Your task to perform on an android device: Search for the new Nintendo switch on Best Buy Image 0: 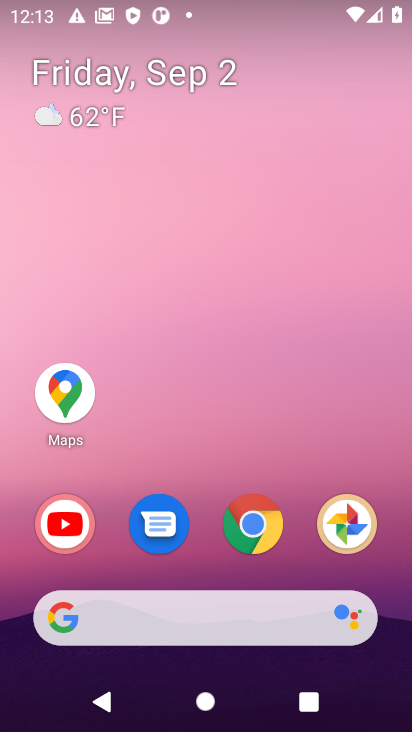
Step 0: click (247, 534)
Your task to perform on an android device: Search for the new Nintendo switch on Best Buy Image 1: 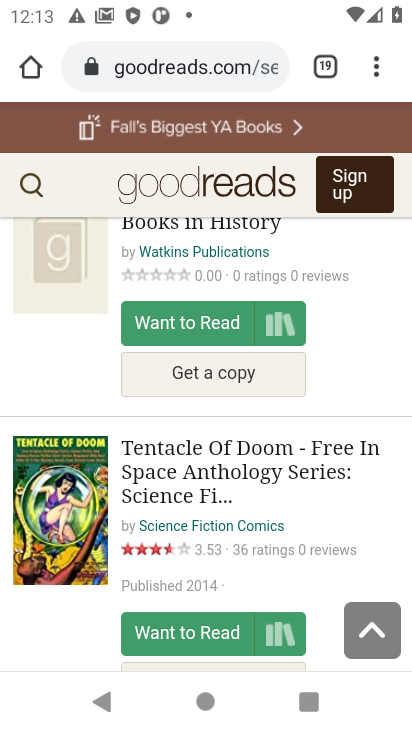
Step 1: click (323, 65)
Your task to perform on an android device: Search for the new Nintendo switch on Best Buy Image 2: 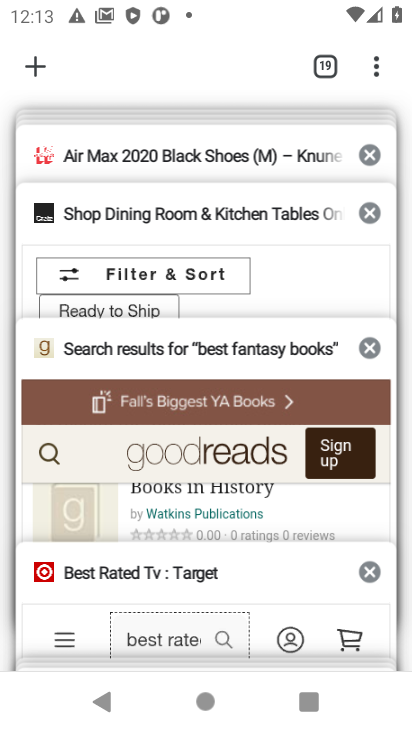
Step 2: drag from (128, 147) to (160, 609)
Your task to perform on an android device: Search for the new Nintendo switch on Best Buy Image 3: 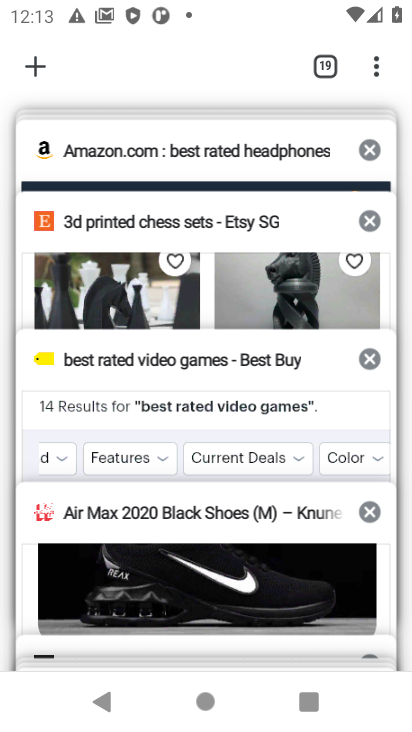
Step 3: click (200, 373)
Your task to perform on an android device: Search for the new Nintendo switch on Best Buy Image 4: 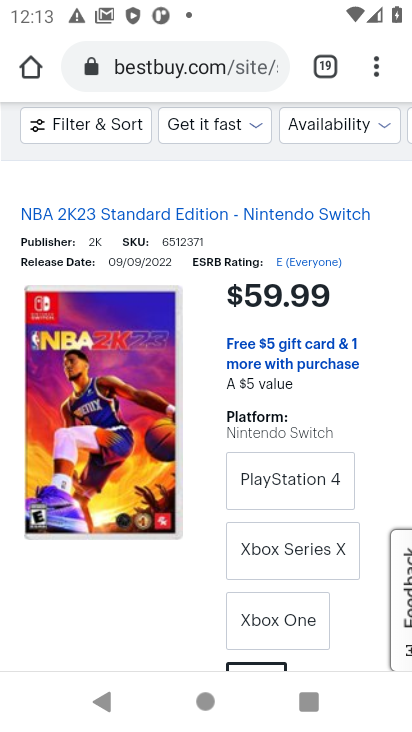
Step 4: drag from (295, 178) to (307, 371)
Your task to perform on an android device: Search for the new Nintendo switch on Best Buy Image 5: 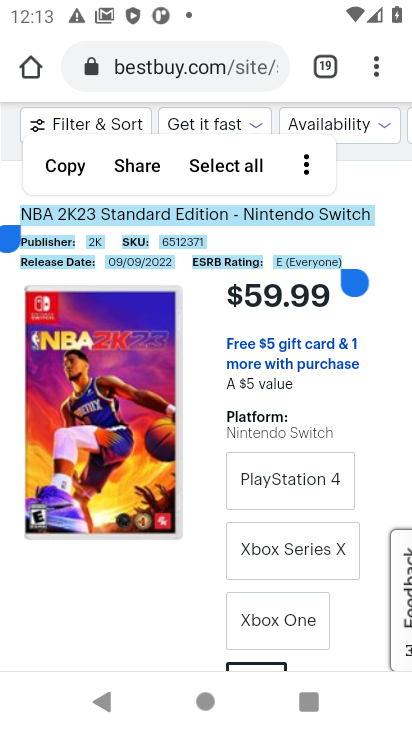
Step 5: click (392, 200)
Your task to perform on an android device: Search for the new Nintendo switch on Best Buy Image 6: 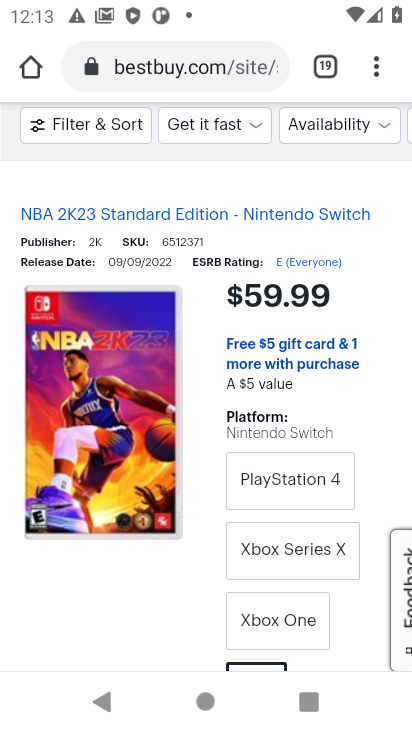
Step 6: drag from (346, 347) to (340, 538)
Your task to perform on an android device: Search for the new Nintendo switch on Best Buy Image 7: 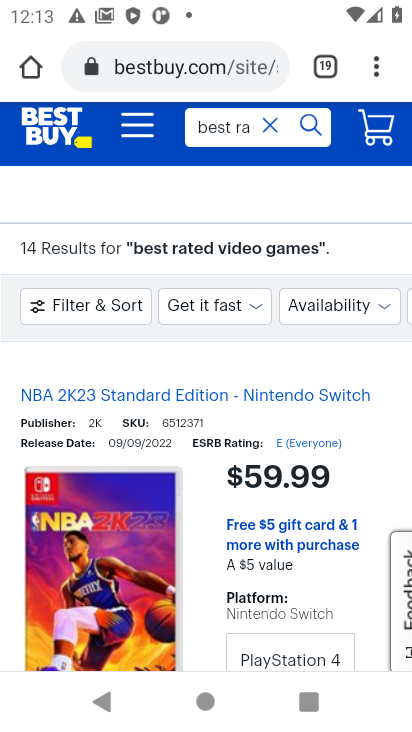
Step 7: click (269, 120)
Your task to perform on an android device: Search for the new Nintendo switch on Best Buy Image 8: 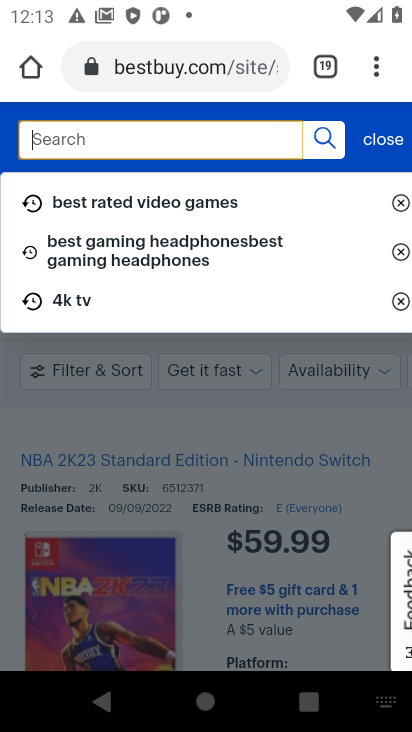
Step 8: click (231, 142)
Your task to perform on an android device: Search for the new Nintendo switch on Best Buy Image 9: 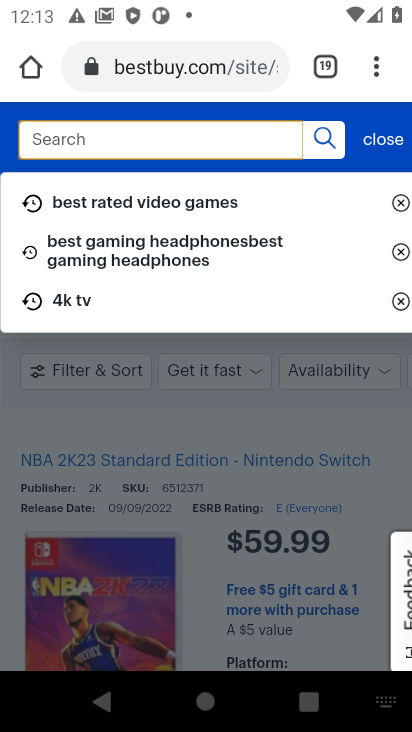
Step 9: type "Nintendo switch"
Your task to perform on an android device: Search for the new Nintendo switch on Best Buy Image 10: 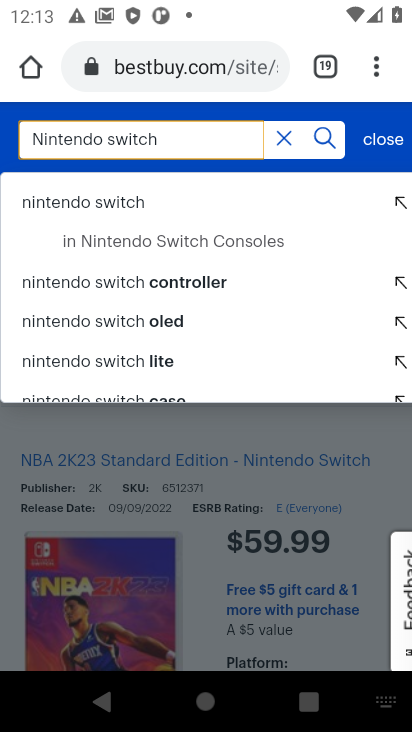
Step 10: click (120, 198)
Your task to perform on an android device: Search for the new Nintendo switch on Best Buy Image 11: 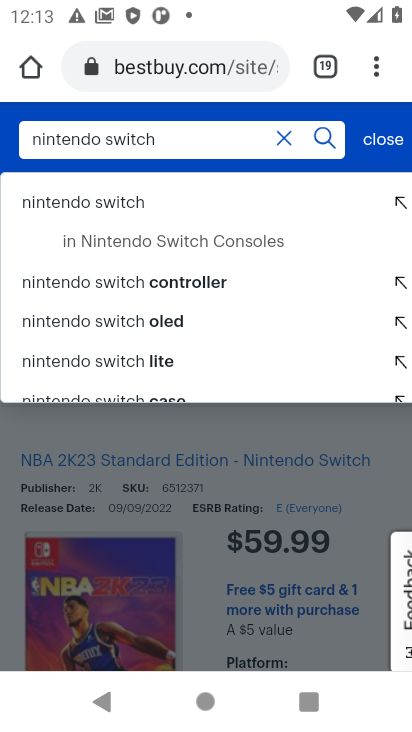
Step 11: click (97, 203)
Your task to perform on an android device: Search for the new Nintendo switch on Best Buy Image 12: 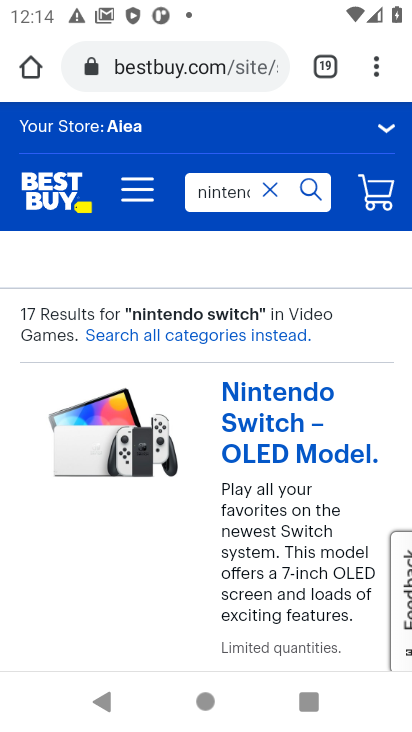
Step 12: drag from (283, 389) to (259, 298)
Your task to perform on an android device: Search for the new Nintendo switch on Best Buy Image 13: 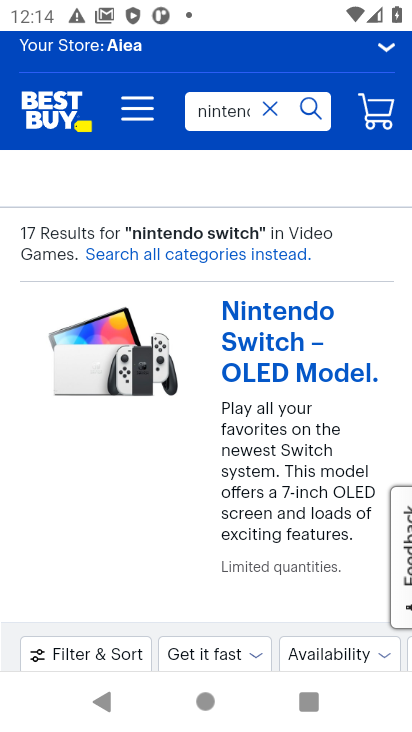
Step 13: drag from (351, 652) to (64, 669)
Your task to perform on an android device: Search for the new Nintendo switch on Best Buy Image 14: 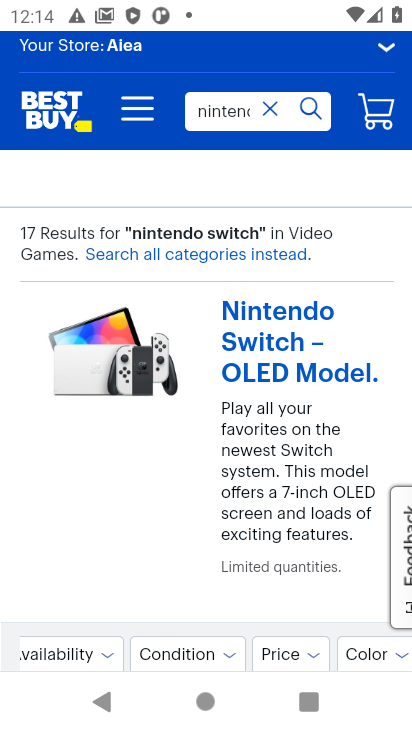
Step 14: drag from (363, 656) to (46, 674)
Your task to perform on an android device: Search for the new Nintendo switch on Best Buy Image 15: 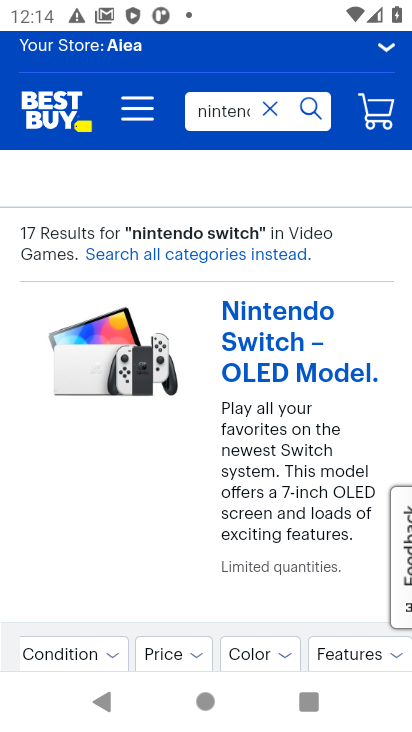
Step 15: drag from (383, 659) to (135, 664)
Your task to perform on an android device: Search for the new Nintendo switch on Best Buy Image 16: 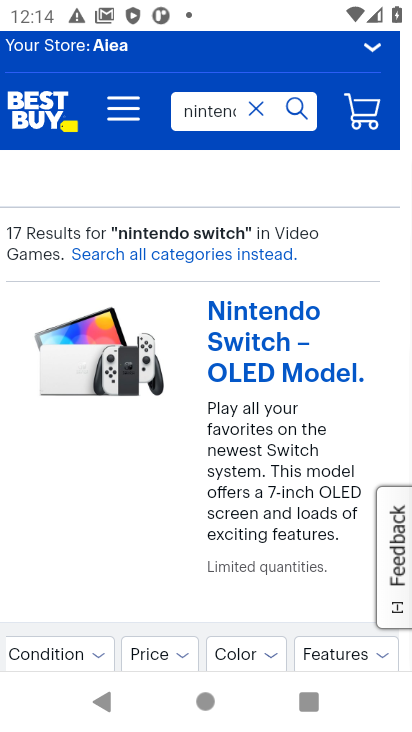
Step 16: click (355, 648)
Your task to perform on an android device: Search for the new Nintendo switch on Best Buy Image 17: 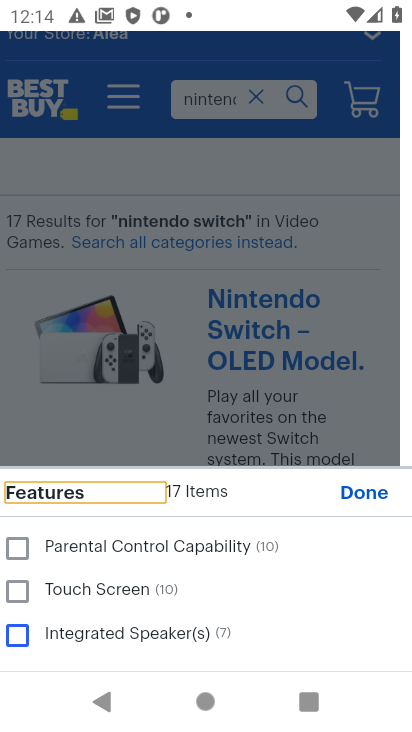
Step 17: click (371, 385)
Your task to perform on an android device: Search for the new Nintendo switch on Best Buy Image 18: 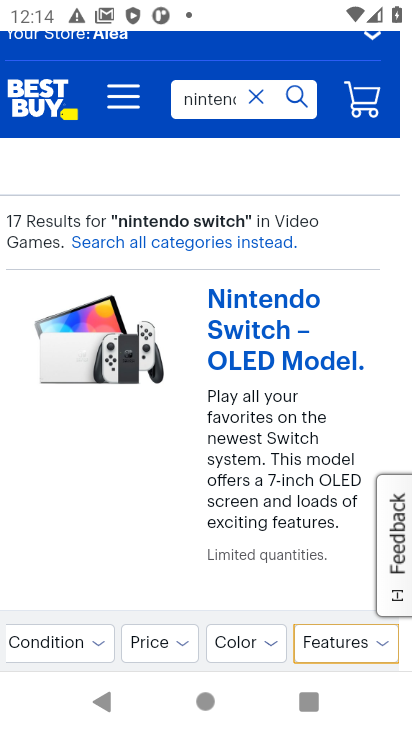
Step 18: drag from (71, 647) to (355, 634)
Your task to perform on an android device: Search for the new Nintendo switch on Best Buy Image 19: 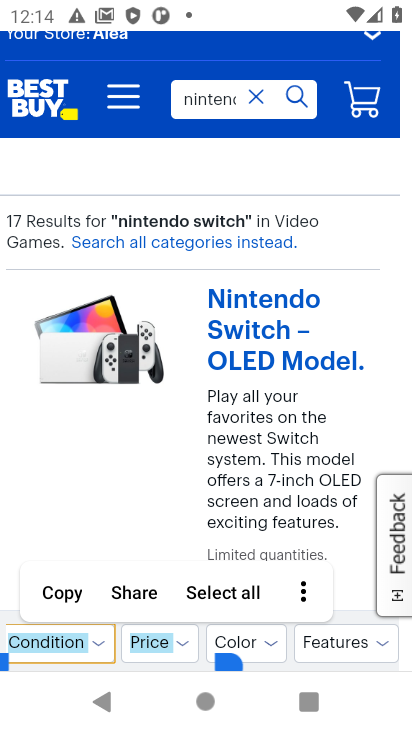
Step 19: drag from (57, 647) to (409, 629)
Your task to perform on an android device: Search for the new Nintendo switch on Best Buy Image 20: 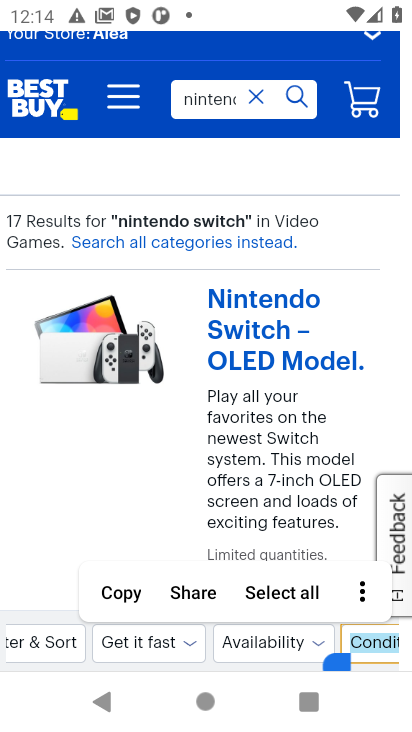
Step 20: click (167, 636)
Your task to perform on an android device: Search for the new Nintendo switch on Best Buy Image 21: 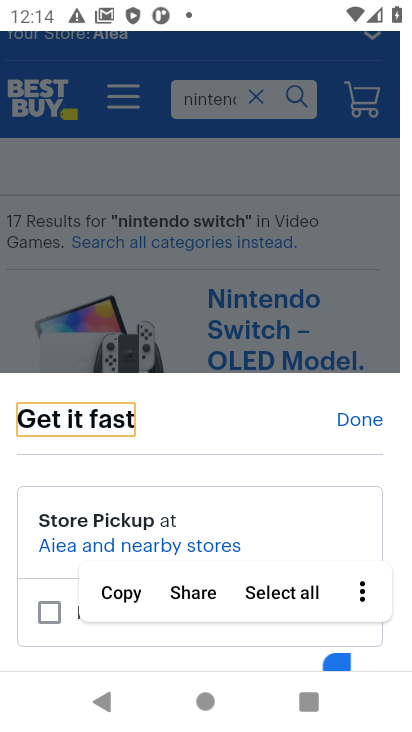
Step 21: drag from (402, 633) to (386, 345)
Your task to perform on an android device: Search for the new Nintendo switch on Best Buy Image 22: 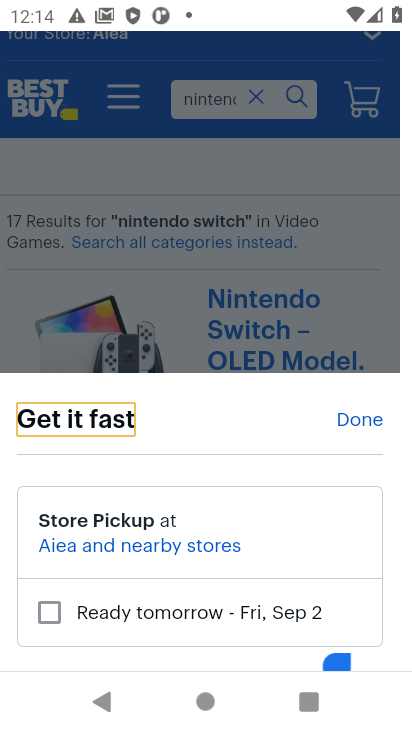
Step 22: click (386, 345)
Your task to perform on an android device: Search for the new Nintendo switch on Best Buy Image 23: 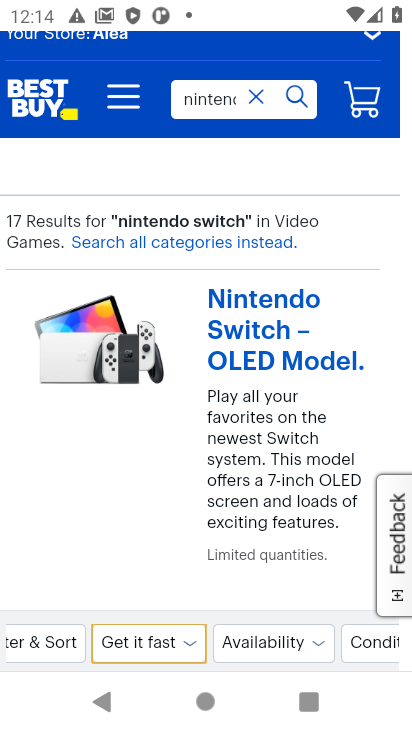
Step 23: click (50, 645)
Your task to perform on an android device: Search for the new Nintendo switch on Best Buy Image 24: 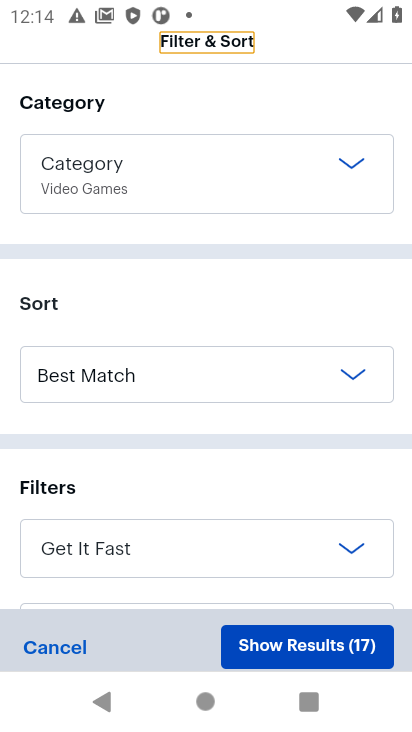
Step 24: click (281, 375)
Your task to perform on an android device: Search for the new Nintendo switch on Best Buy Image 25: 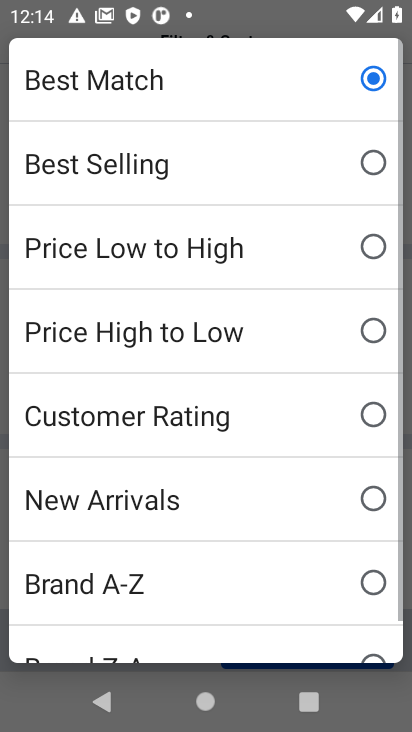
Step 25: click (239, 501)
Your task to perform on an android device: Search for the new Nintendo switch on Best Buy Image 26: 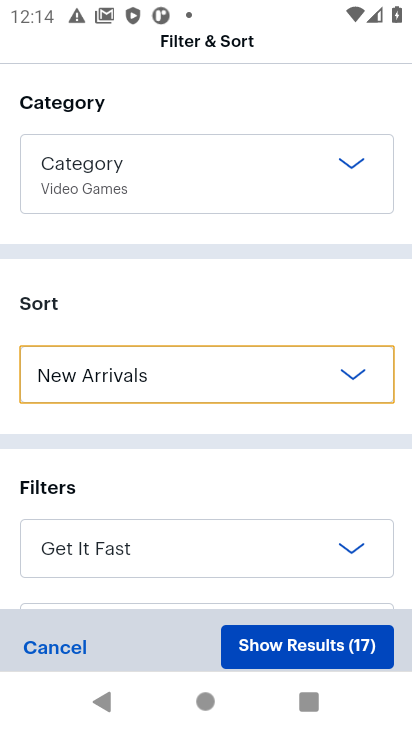
Step 26: click (316, 649)
Your task to perform on an android device: Search for the new Nintendo switch on Best Buy Image 27: 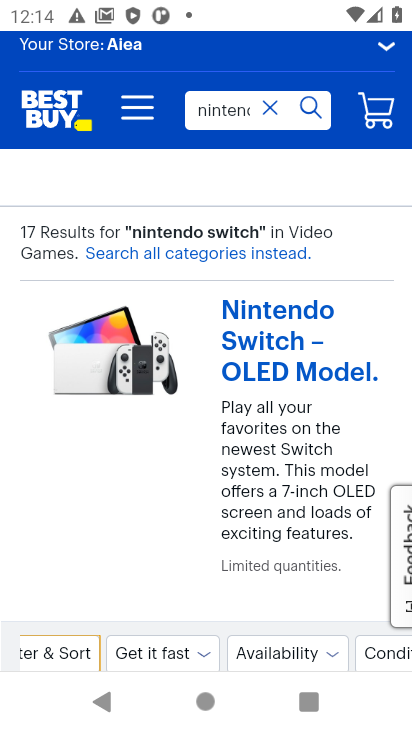
Step 27: task complete